Your task to perform on an android device: find snoozed emails in the gmail app Image 0: 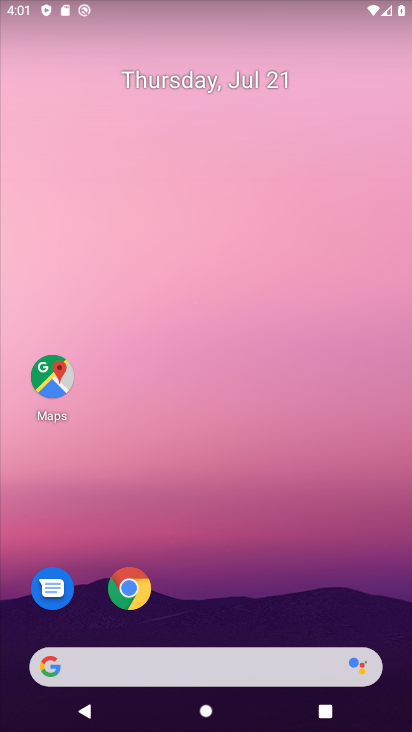
Step 0: drag from (241, 449) to (273, 189)
Your task to perform on an android device: find snoozed emails in the gmail app Image 1: 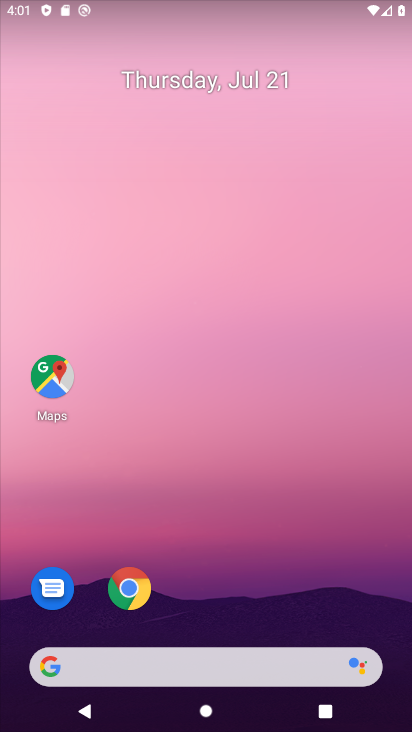
Step 1: drag from (243, 532) to (258, 107)
Your task to perform on an android device: find snoozed emails in the gmail app Image 2: 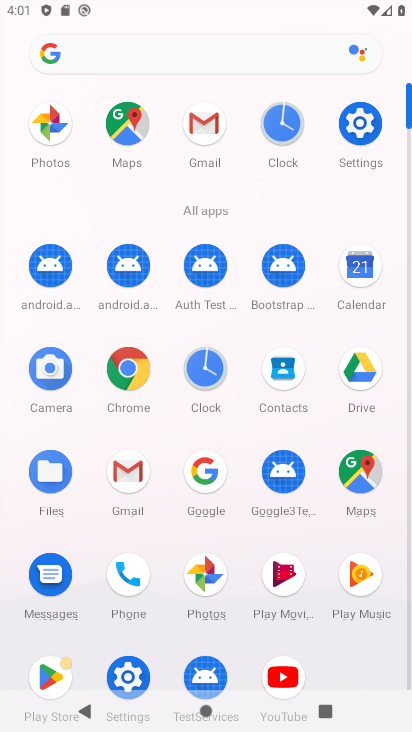
Step 2: click (122, 477)
Your task to perform on an android device: find snoozed emails in the gmail app Image 3: 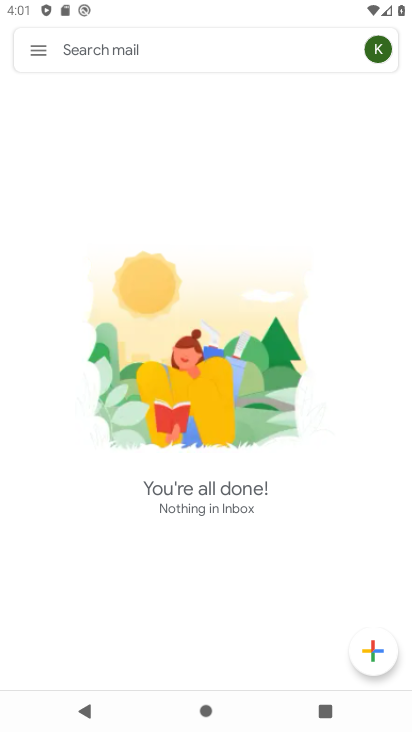
Step 3: click (35, 48)
Your task to perform on an android device: find snoozed emails in the gmail app Image 4: 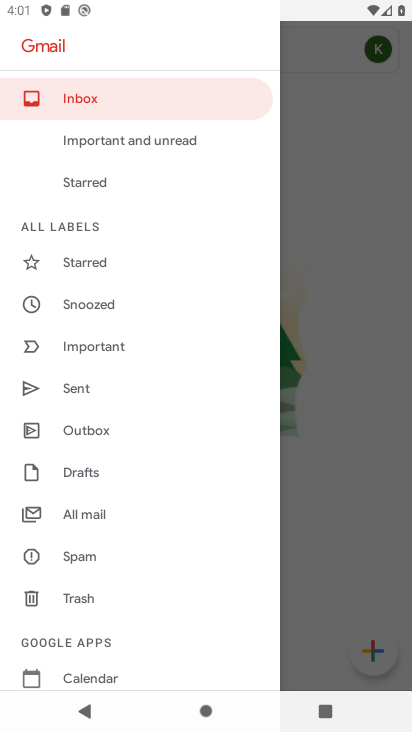
Step 4: click (82, 315)
Your task to perform on an android device: find snoozed emails in the gmail app Image 5: 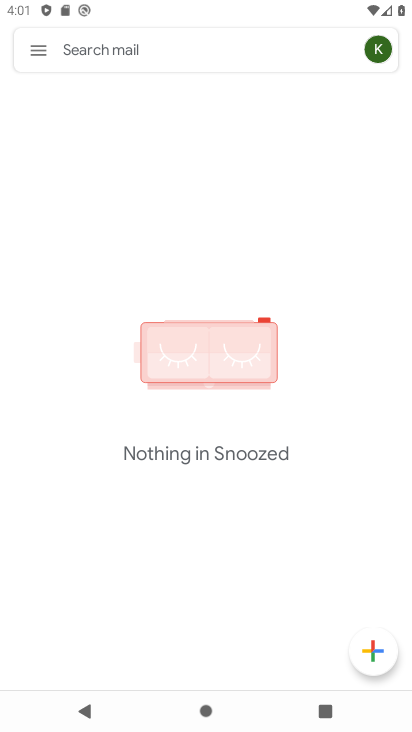
Step 5: task complete